Your task to perform on an android device: Open Youtube and go to "Your channel" Image 0: 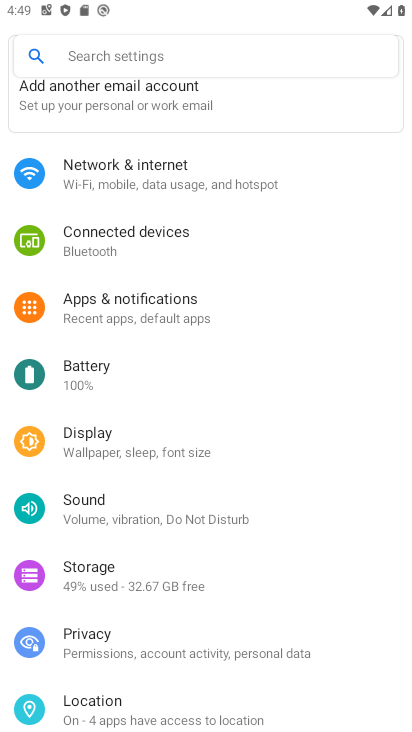
Step 0: press home button
Your task to perform on an android device: Open Youtube and go to "Your channel" Image 1: 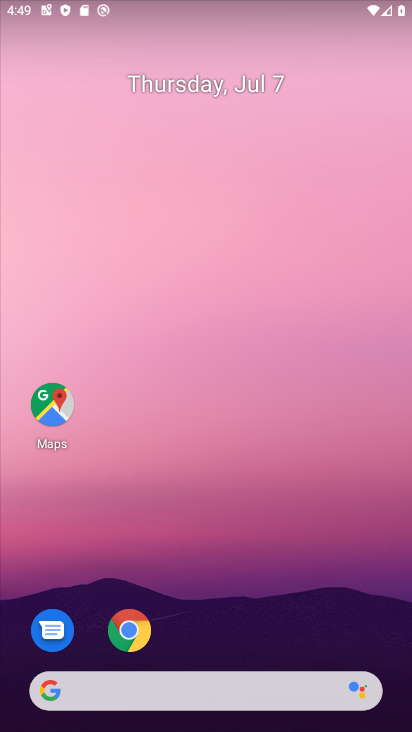
Step 1: drag from (241, 650) to (176, 55)
Your task to perform on an android device: Open Youtube and go to "Your channel" Image 2: 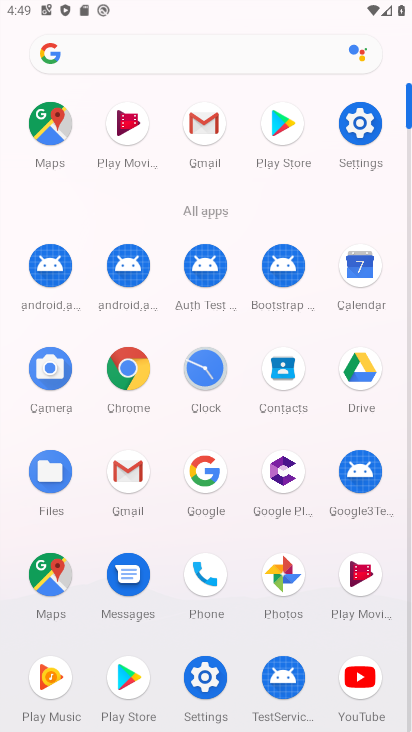
Step 2: click (369, 680)
Your task to perform on an android device: Open Youtube and go to "Your channel" Image 3: 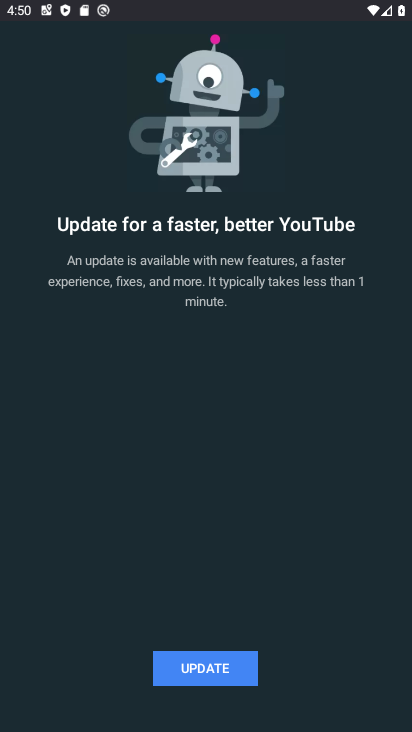
Step 3: click (194, 651)
Your task to perform on an android device: Open Youtube and go to "Your channel" Image 4: 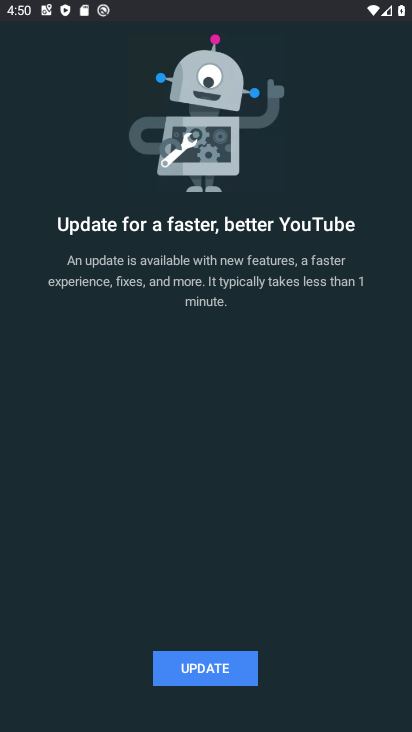
Step 4: press home button
Your task to perform on an android device: Open Youtube and go to "Your channel" Image 5: 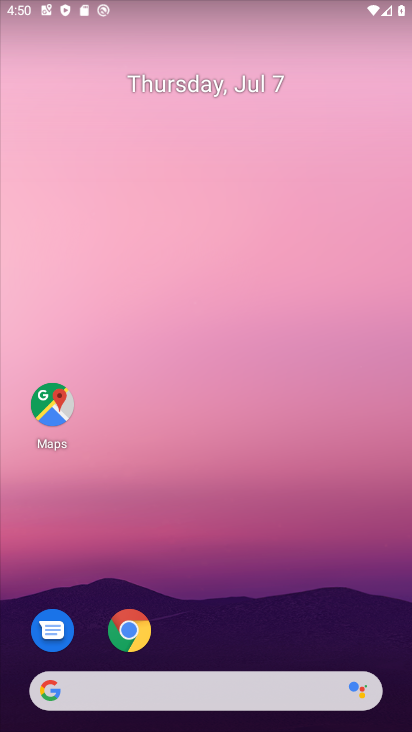
Step 5: drag from (198, 656) to (194, 132)
Your task to perform on an android device: Open Youtube and go to "Your channel" Image 6: 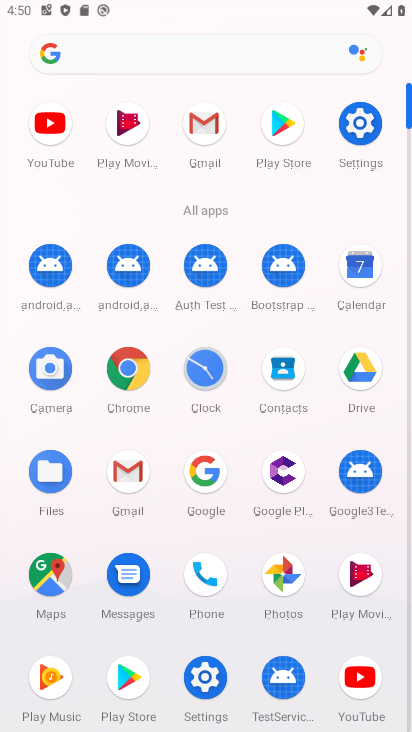
Step 6: drag from (198, 633) to (274, 166)
Your task to perform on an android device: Open Youtube and go to "Your channel" Image 7: 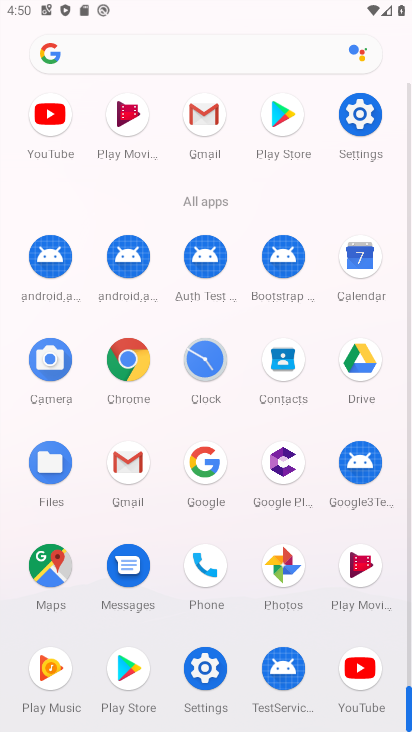
Step 7: click (356, 672)
Your task to perform on an android device: Open Youtube and go to "Your channel" Image 8: 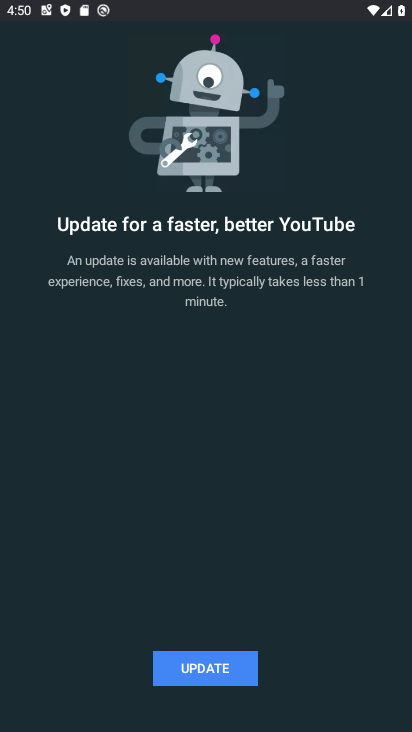
Step 8: click (207, 678)
Your task to perform on an android device: Open Youtube and go to "Your channel" Image 9: 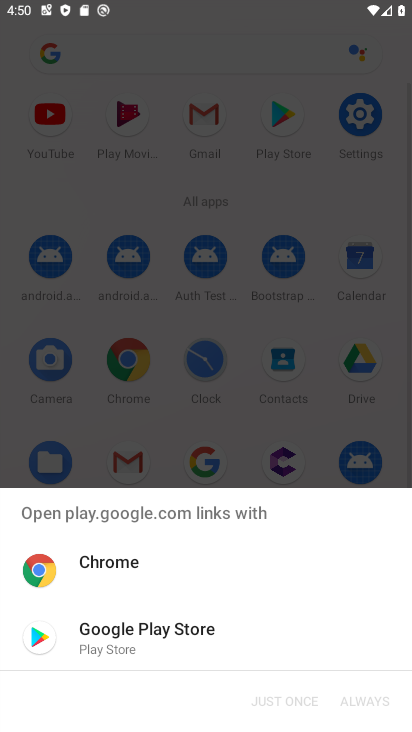
Step 9: click (199, 639)
Your task to perform on an android device: Open Youtube and go to "Your channel" Image 10: 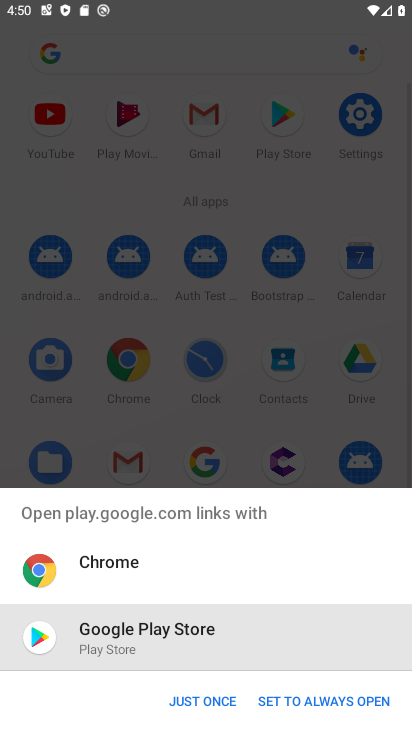
Step 10: click (200, 699)
Your task to perform on an android device: Open Youtube and go to "Your channel" Image 11: 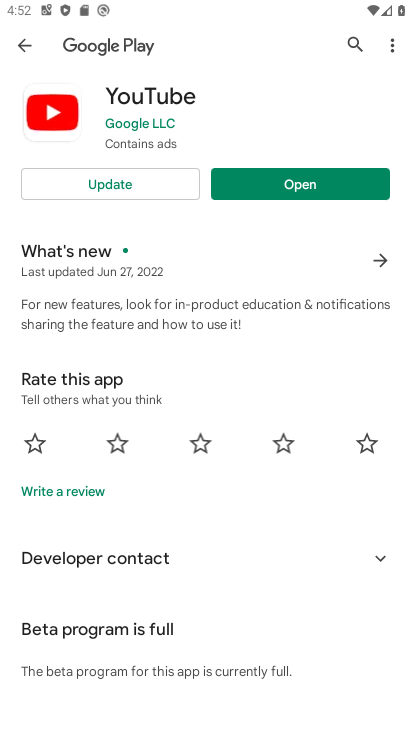
Step 11: click (304, 182)
Your task to perform on an android device: Open Youtube and go to "Your channel" Image 12: 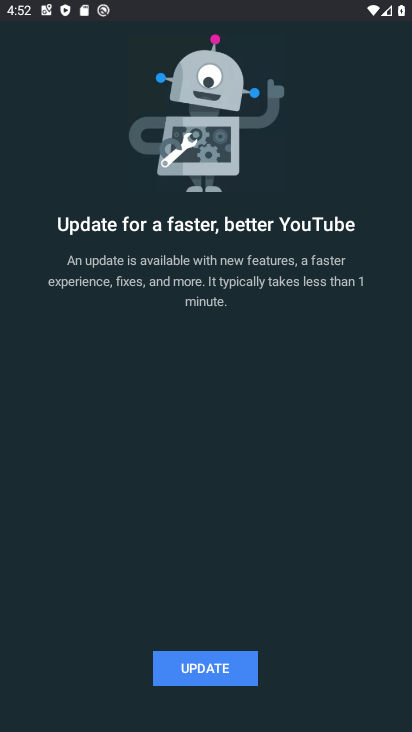
Step 12: click (199, 667)
Your task to perform on an android device: Open Youtube and go to "Your channel" Image 13: 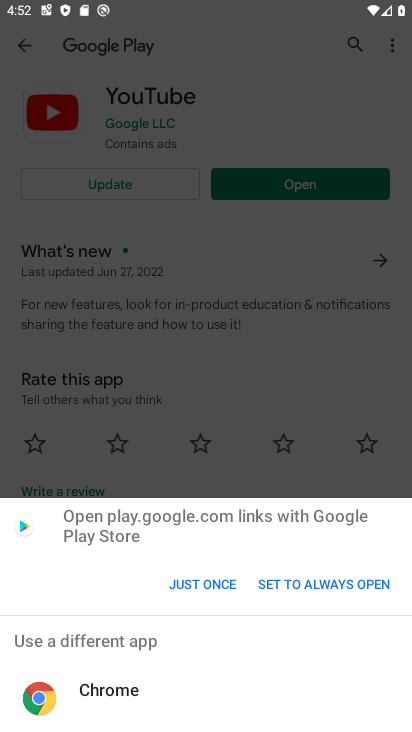
Step 13: click (206, 580)
Your task to perform on an android device: Open Youtube and go to "Your channel" Image 14: 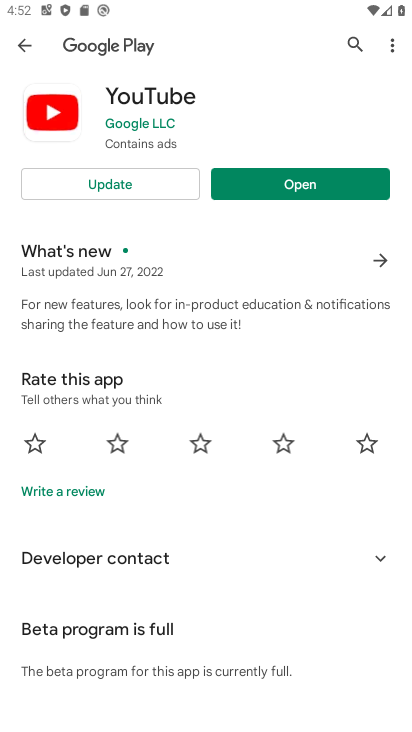
Step 14: click (173, 181)
Your task to perform on an android device: Open Youtube and go to "Your channel" Image 15: 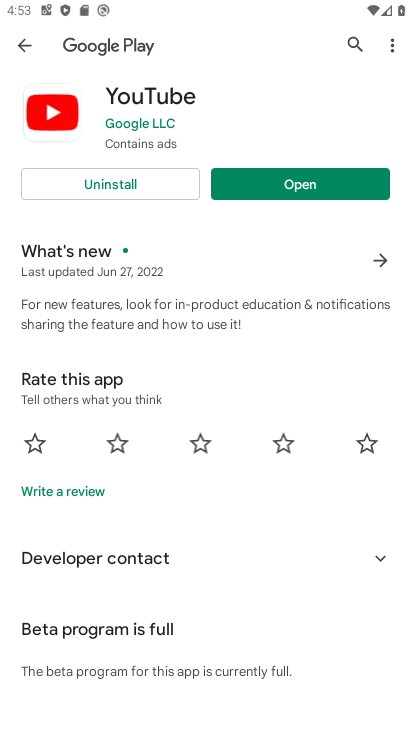
Step 15: click (254, 186)
Your task to perform on an android device: Open Youtube and go to "Your channel" Image 16: 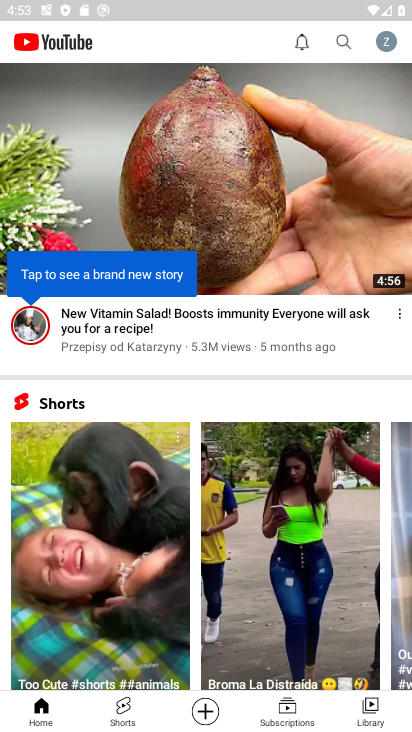
Step 16: click (339, 42)
Your task to perform on an android device: Open Youtube and go to "Your channel" Image 17: 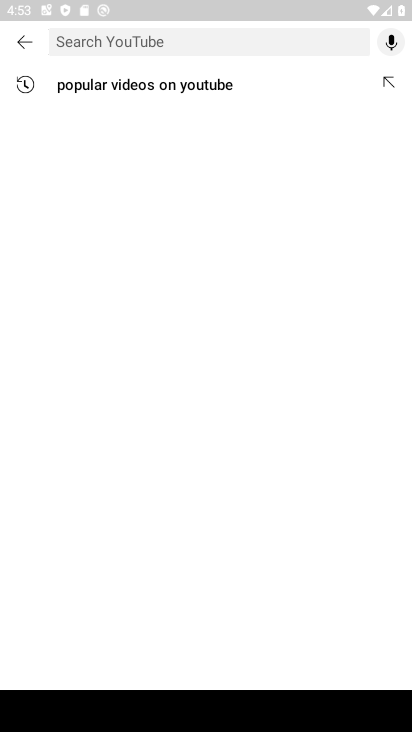
Step 17: type "your channel"
Your task to perform on an android device: Open Youtube and go to "Your channel" Image 18: 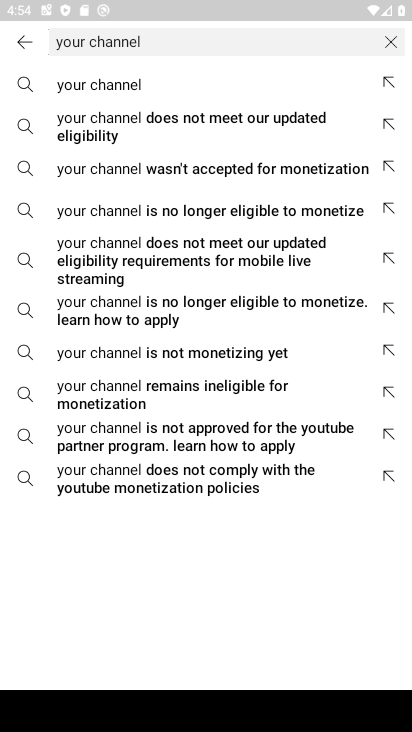
Step 18: click (176, 74)
Your task to perform on an android device: Open Youtube and go to "Your channel" Image 19: 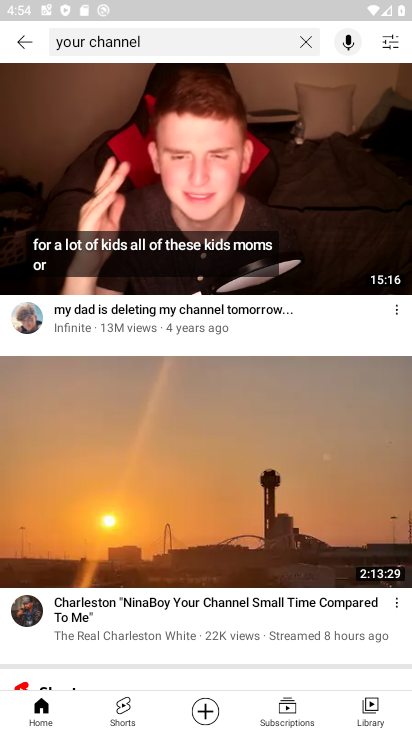
Step 19: task complete